Your task to perform on an android device: find photos in the google photos app Image 0: 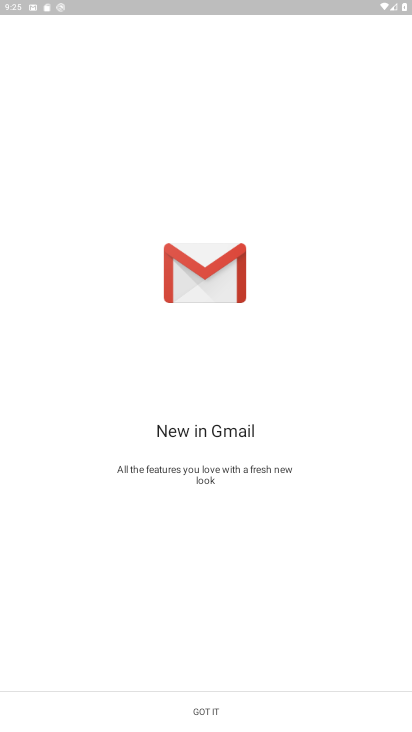
Step 0: press home button
Your task to perform on an android device: find photos in the google photos app Image 1: 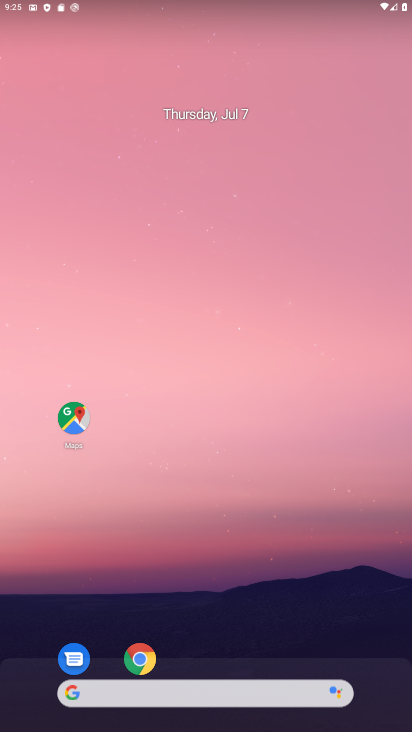
Step 1: drag from (237, 685) to (325, 26)
Your task to perform on an android device: find photos in the google photos app Image 2: 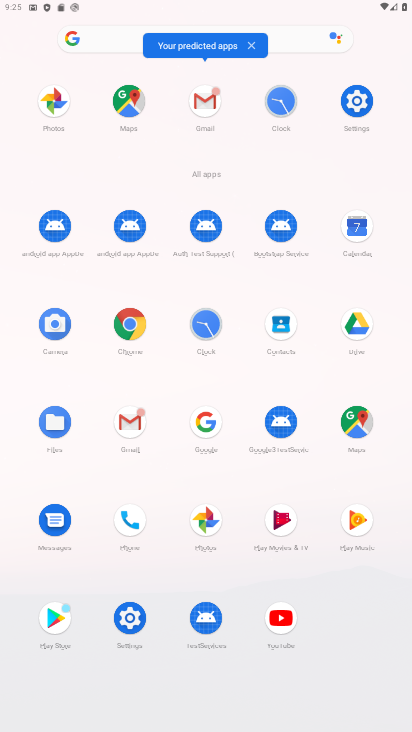
Step 2: click (220, 507)
Your task to perform on an android device: find photos in the google photos app Image 3: 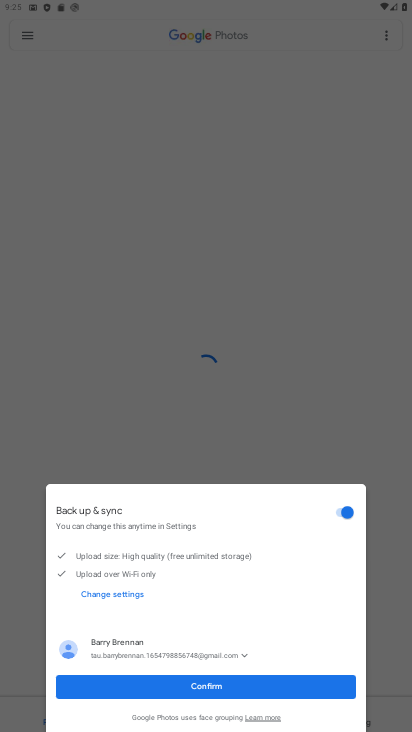
Step 3: click (215, 684)
Your task to perform on an android device: find photos in the google photos app Image 4: 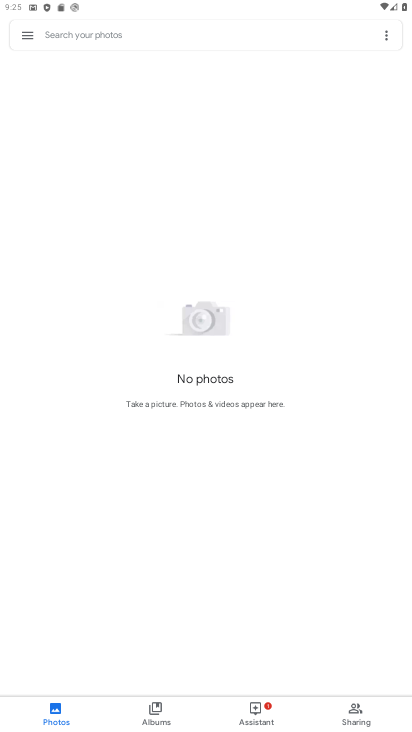
Step 4: task complete